Your task to perform on an android device: change the upload size in google photos Image 0: 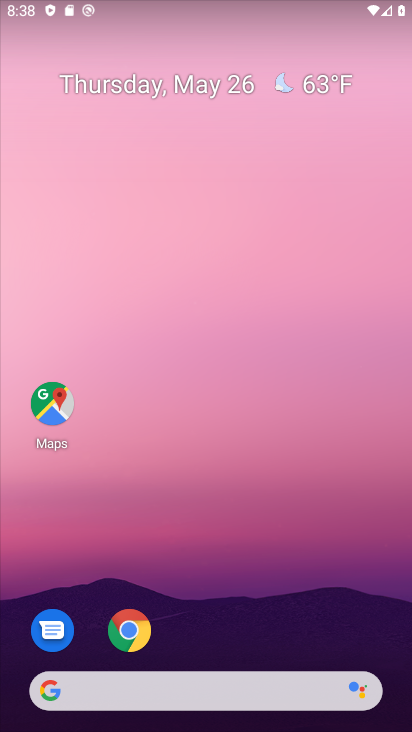
Step 0: drag from (289, 692) to (180, 187)
Your task to perform on an android device: change the upload size in google photos Image 1: 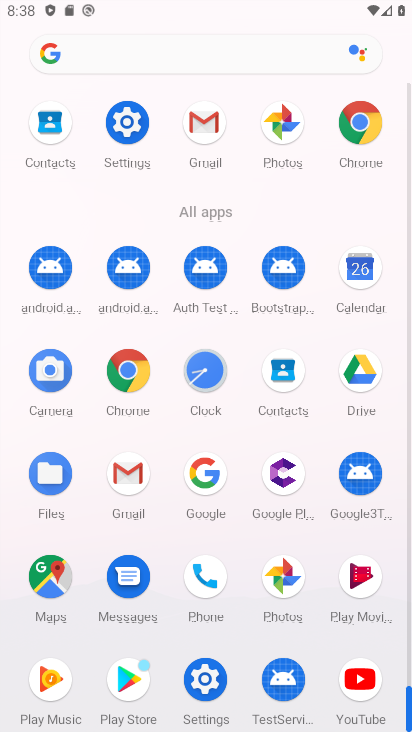
Step 1: click (276, 581)
Your task to perform on an android device: change the upload size in google photos Image 2: 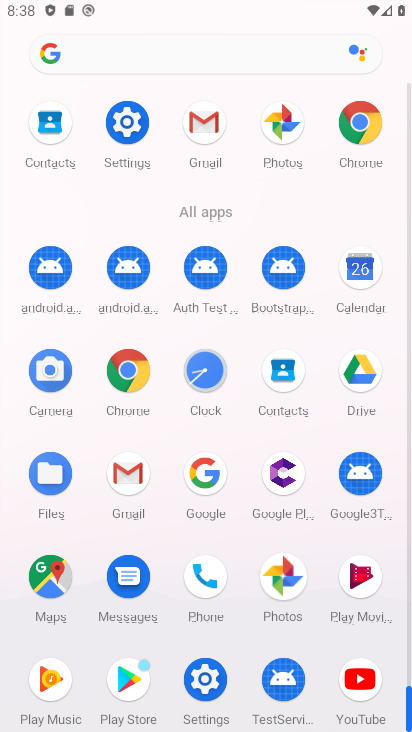
Step 2: click (277, 577)
Your task to perform on an android device: change the upload size in google photos Image 3: 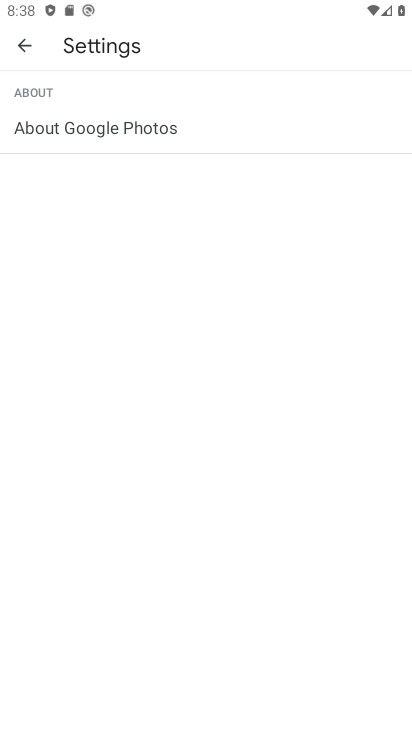
Step 3: click (279, 574)
Your task to perform on an android device: change the upload size in google photos Image 4: 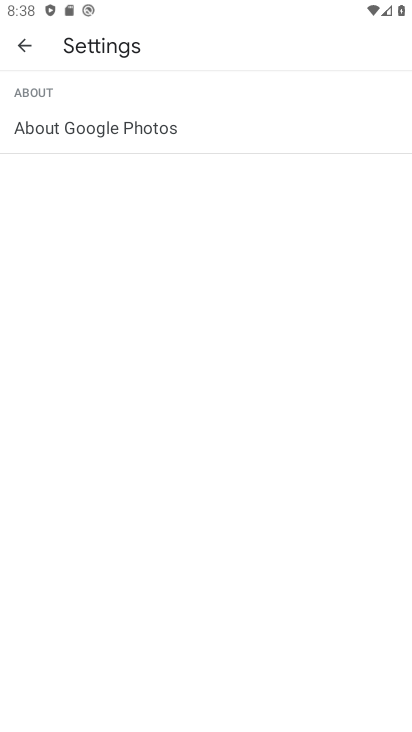
Step 4: click (284, 575)
Your task to perform on an android device: change the upload size in google photos Image 5: 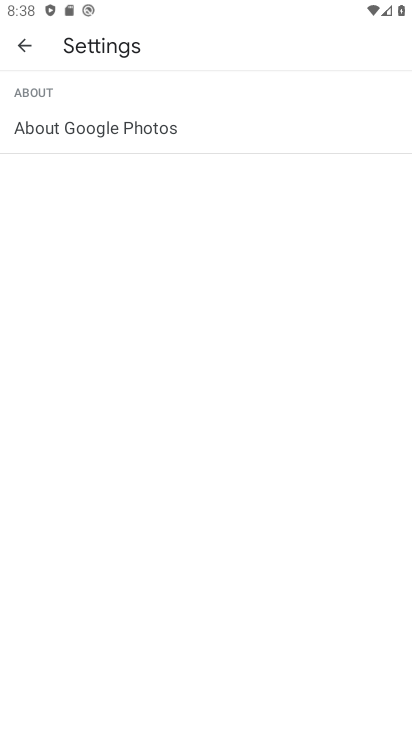
Step 5: click (27, 42)
Your task to perform on an android device: change the upload size in google photos Image 6: 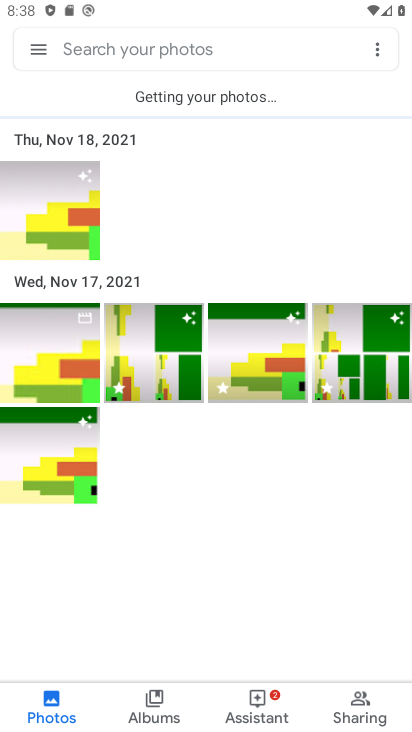
Step 6: drag from (204, 417) to (166, 109)
Your task to perform on an android device: change the upload size in google photos Image 7: 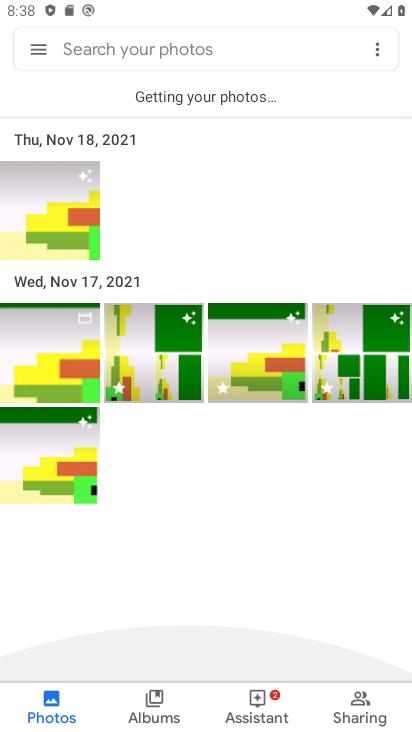
Step 7: drag from (80, 570) to (58, 75)
Your task to perform on an android device: change the upload size in google photos Image 8: 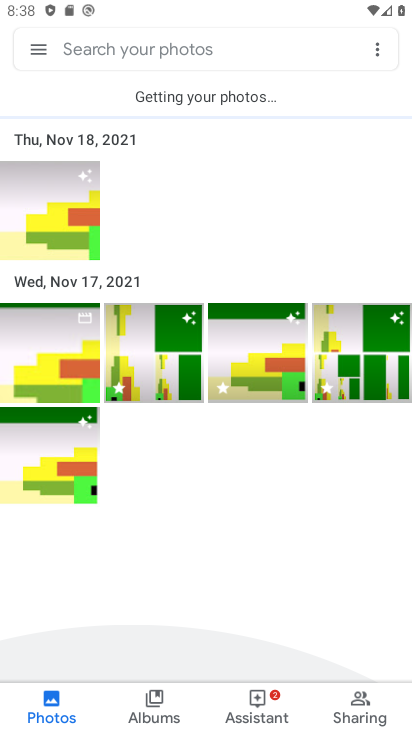
Step 8: drag from (116, 420) to (108, 184)
Your task to perform on an android device: change the upload size in google photos Image 9: 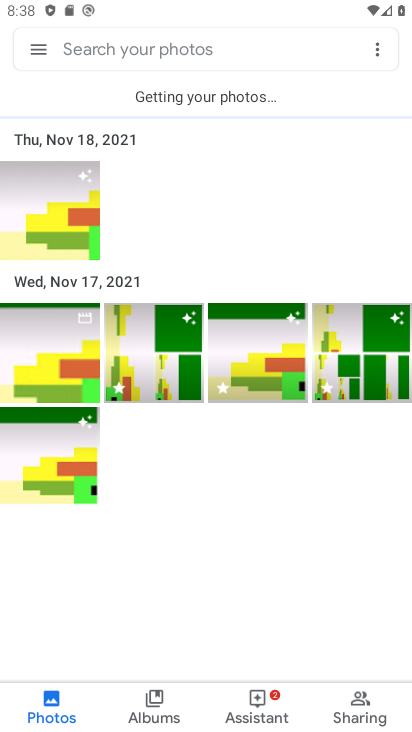
Step 9: drag from (223, 520) to (180, 419)
Your task to perform on an android device: change the upload size in google photos Image 10: 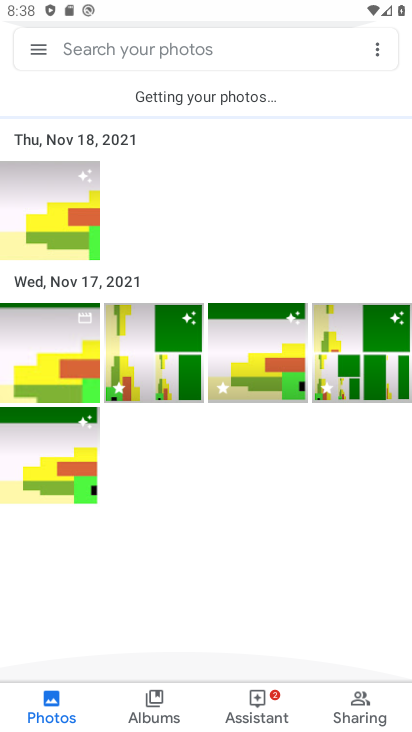
Step 10: drag from (100, 115) to (135, 476)
Your task to perform on an android device: change the upload size in google photos Image 11: 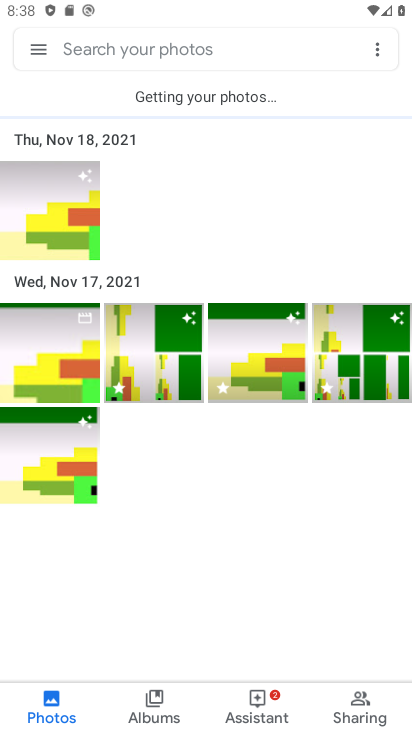
Step 11: click (35, 54)
Your task to perform on an android device: change the upload size in google photos Image 12: 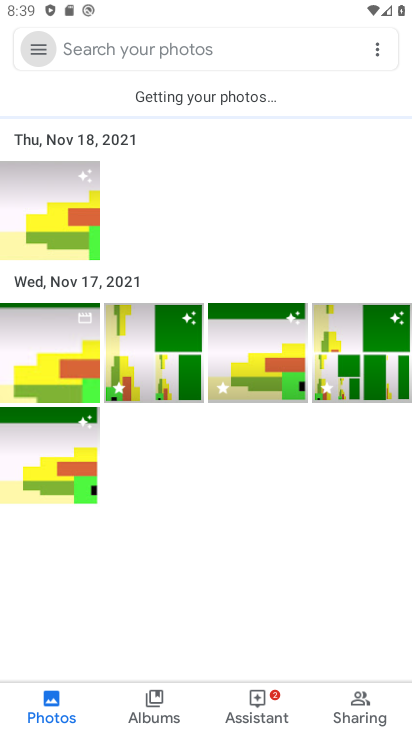
Step 12: click (40, 50)
Your task to perform on an android device: change the upload size in google photos Image 13: 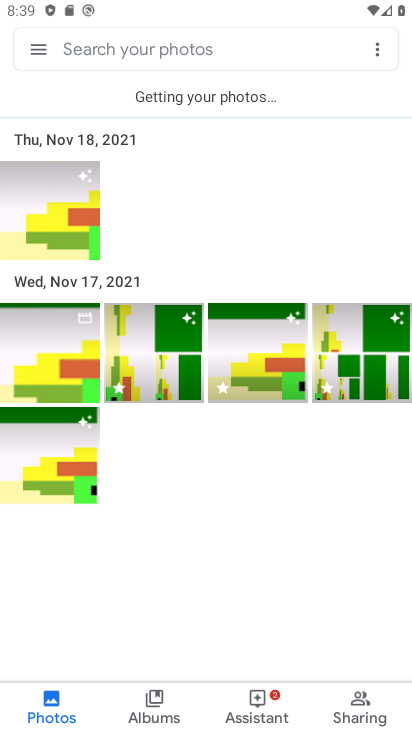
Step 13: click (39, 48)
Your task to perform on an android device: change the upload size in google photos Image 14: 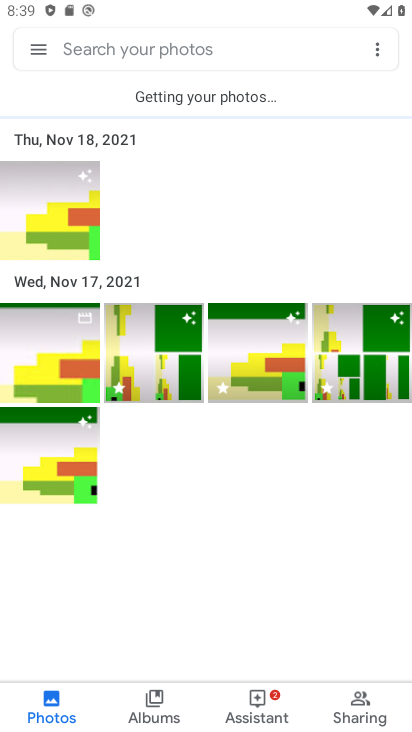
Step 14: click (44, 47)
Your task to perform on an android device: change the upload size in google photos Image 15: 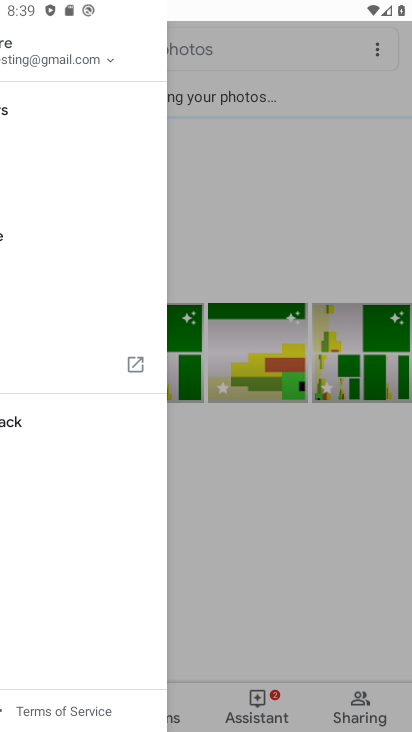
Step 15: click (47, 44)
Your task to perform on an android device: change the upload size in google photos Image 16: 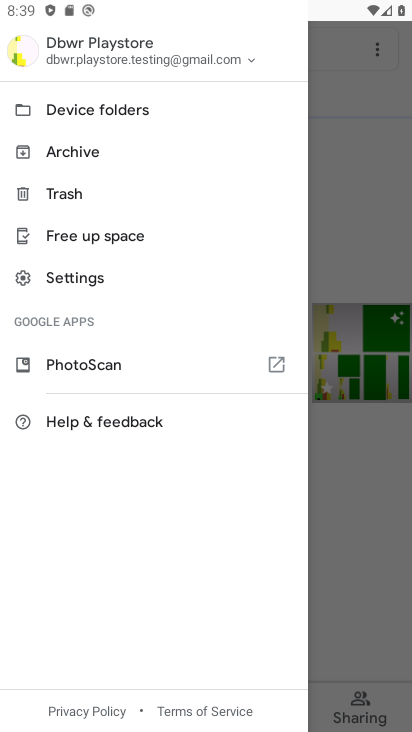
Step 16: click (48, 43)
Your task to perform on an android device: change the upload size in google photos Image 17: 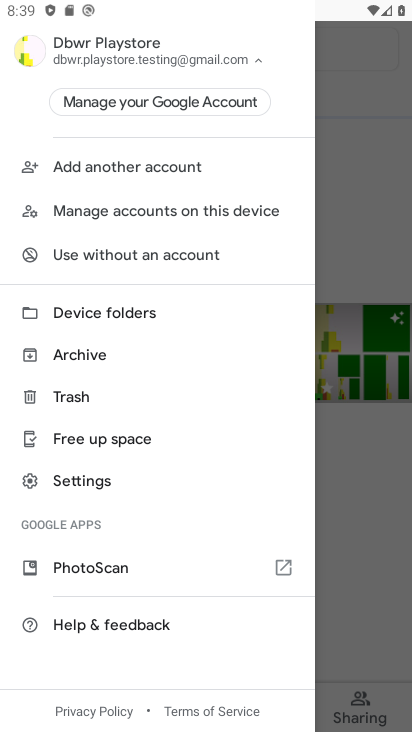
Step 17: click (81, 474)
Your task to perform on an android device: change the upload size in google photos Image 18: 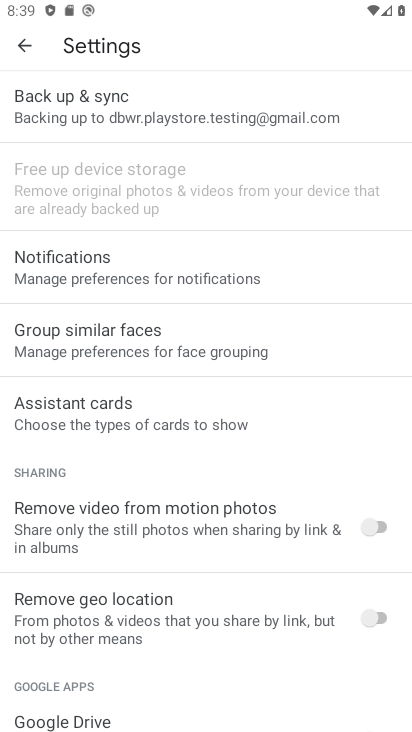
Step 18: click (48, 95)
Your task to perform on an android device: change the upload size in google photos Image 19: 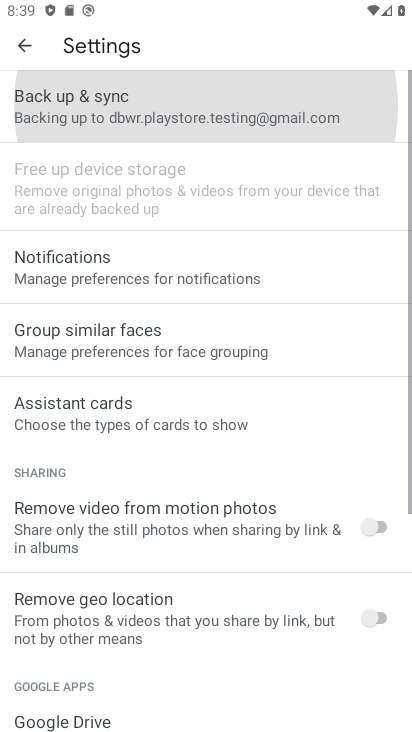
Step 19: click (55, 102)
Your task to perform on an android device: change the upload size in google photos Image 20: 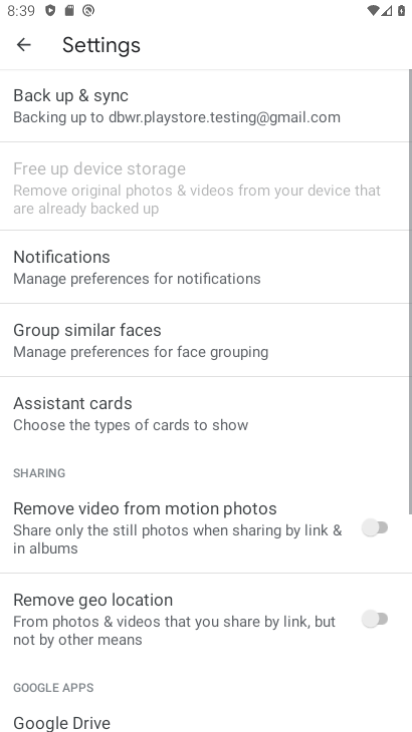
Step 20: click (58, 106)
Your task to perform on an android device: change the upload size in google photos Image 21: 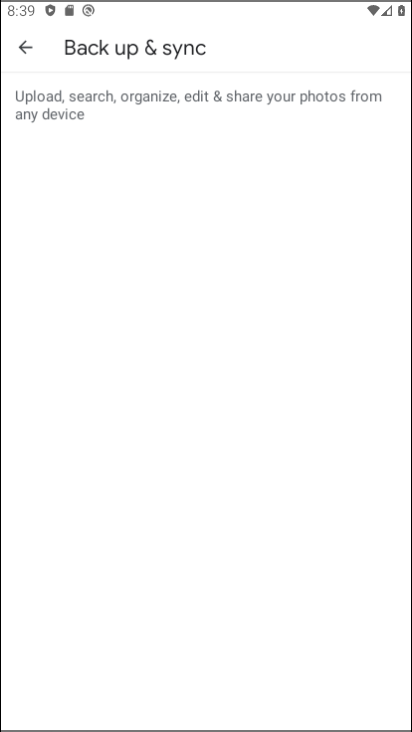
Step 21: click (58, 106)
Your task to perform on an android device: change the upload size in google photos Image 22: 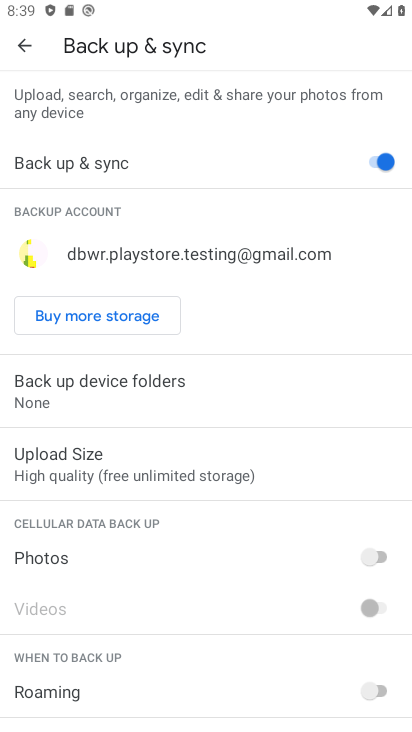
Step 22: click (55, 461)
Your task to perform on an android device: change the upload size in google photos Image 23: 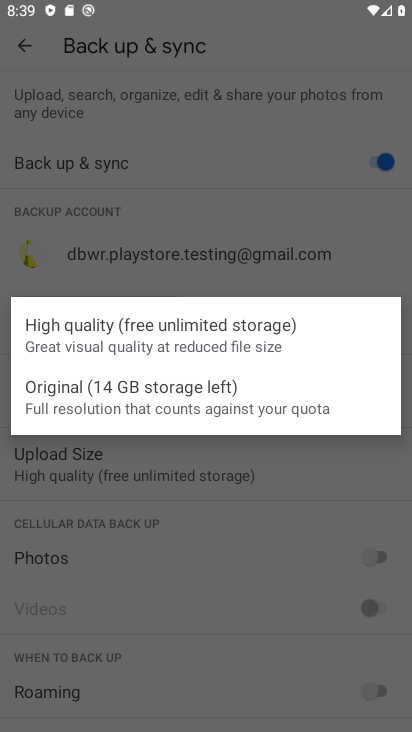
Step 23: click (57, 408)
Your task to perform on an android device: change the upload size in google photos Image 24: 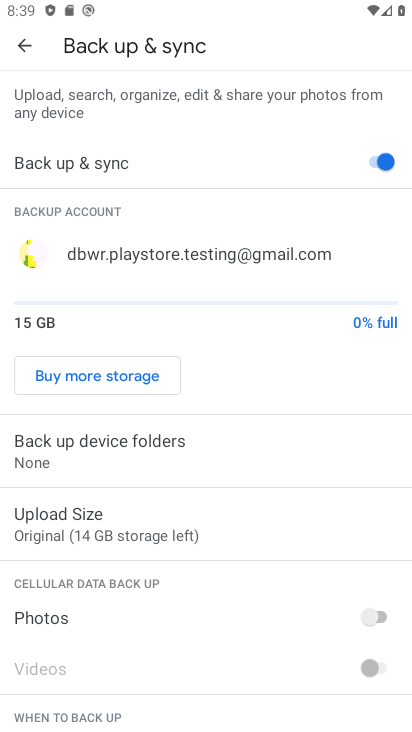
Step 24: task complete